Your task to perform on an android device: What's on my calendar tomorrow? Image 0: 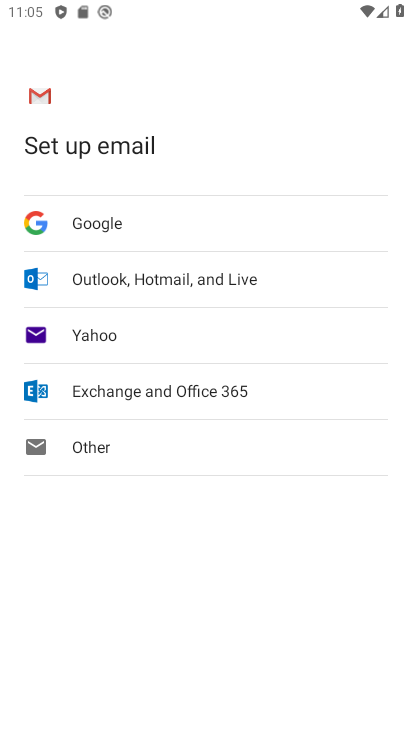
Step 0: press home button
Your task to perform on an android device: What's on my calendar tomorrow? Image 1: 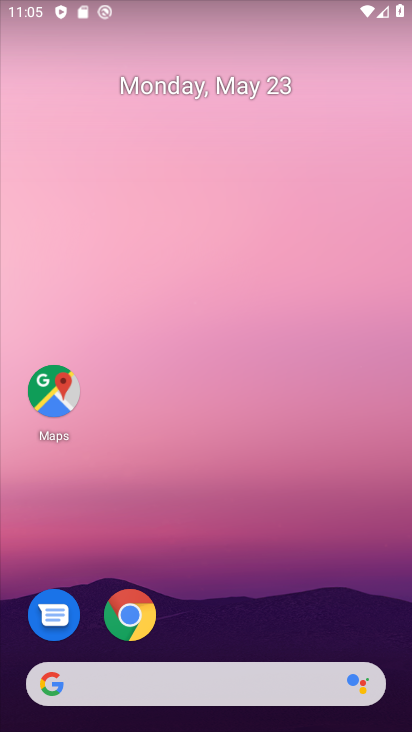
Step 1: click (228, 91)
Your task to perform on an android device: What's on my calendar tomorrow? Image 2: 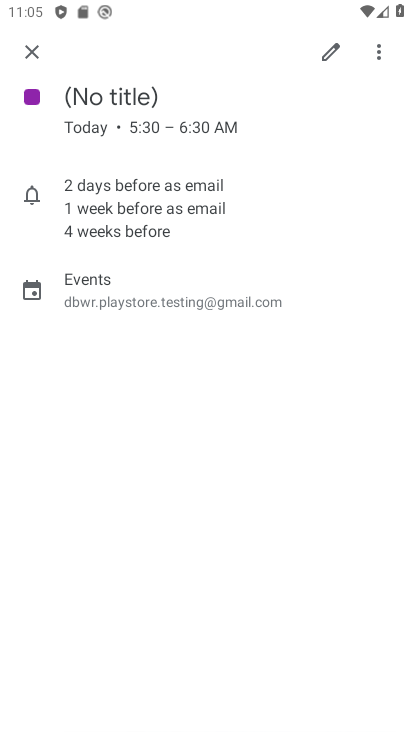
Step 2: click (35, 62)
Your task to perform on an android device: What's on my calendar tomorrow? Image 3: 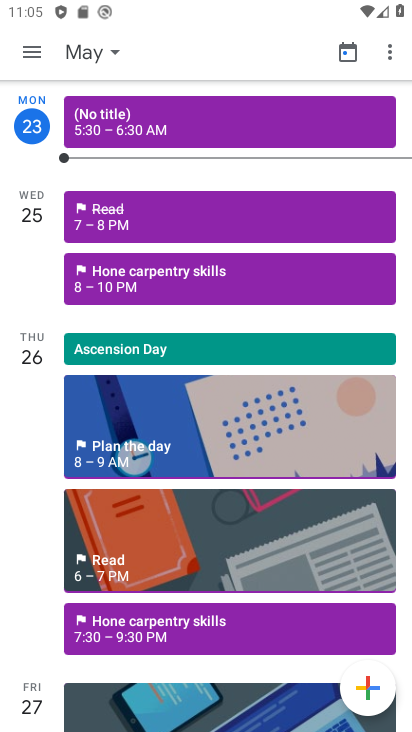
Step 3: click (197, 217)
Your task to perform on an android device: What's on my calendar tomorrow? Image 4: 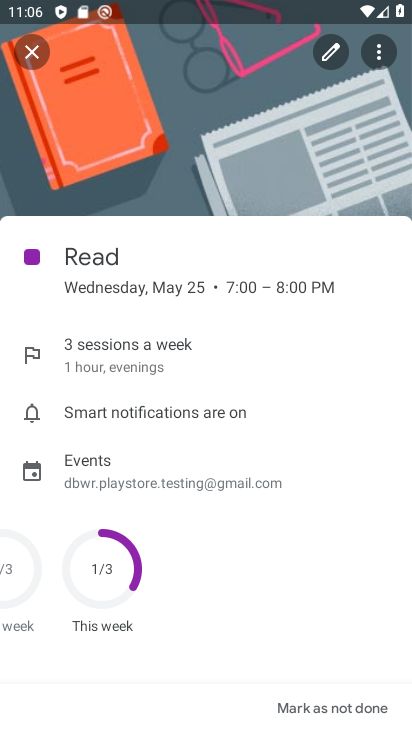
Step 4: task complete